Your task to perform on an android device: set default search engine in the chrome app Image 0: 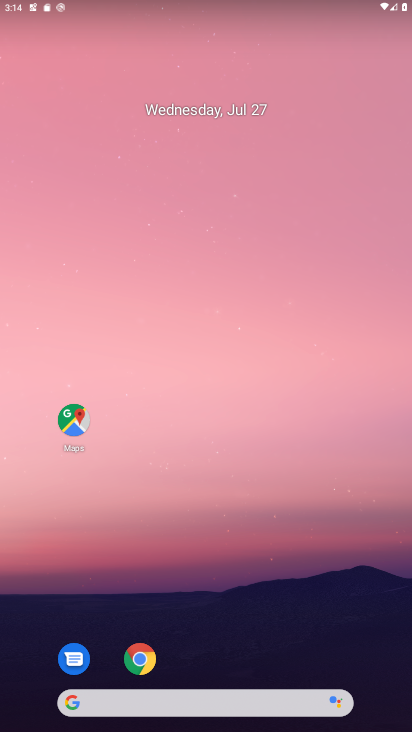
Step 0: drag from (330, 595) to (397, 0)
Your task to perform on an android device: set default search engine in the chrome app Image 1: 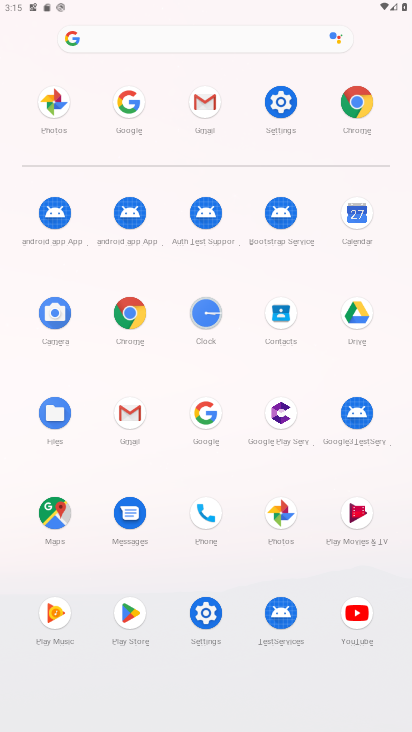
Step 1: click (359, 105)
Your task to perform on an android device: set default search engine in the chrome app Image 2: 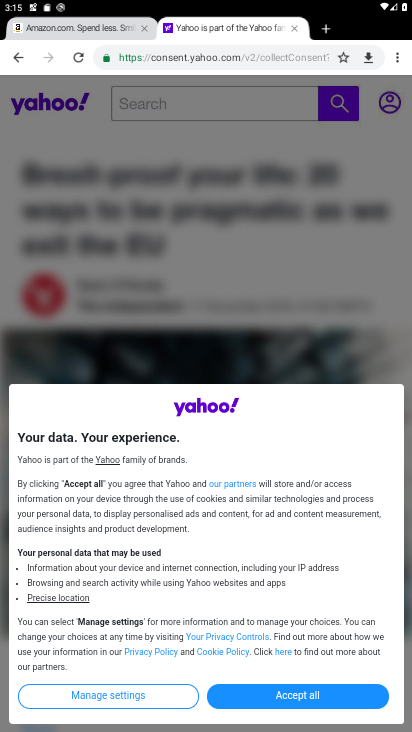
Step 2: drag from (398, 51) to (276, 382)
Your task to perform on an android device: set default search engine in the chrome app Image 3: 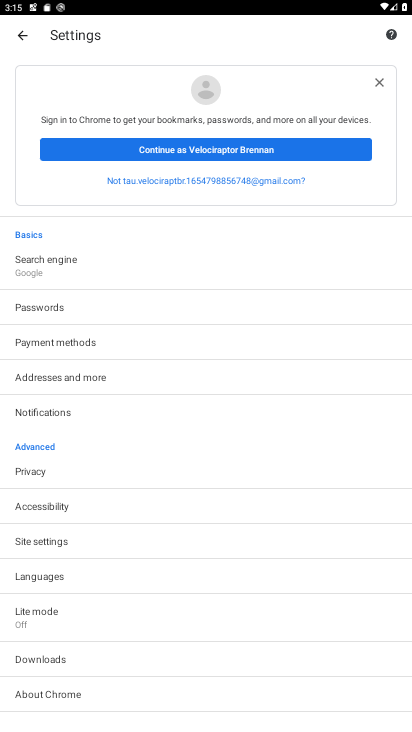
Step 3: click (82, 257)
Your task to perform on an android device: set default search engine in the chrome app Image 4: 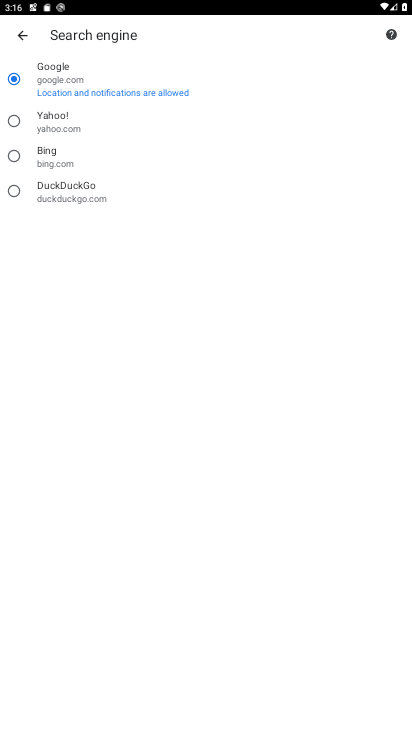
Step 4: task complete